Your task to perform on an android device: Go to display settings Image 0: 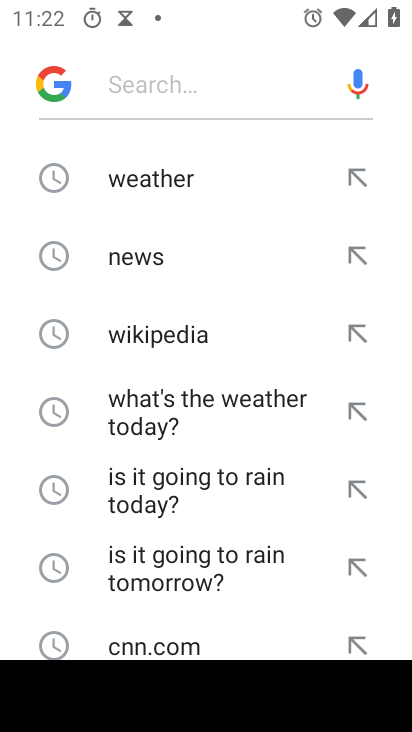
Step 0: press home button
Your task to perform on an android device: Go to display settings Image 1: 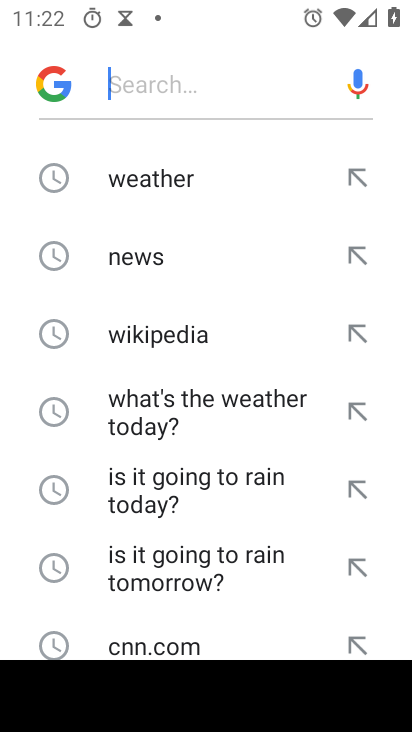
Step 1: press home button
Your task to perform on an android device: Go to display settings Image 2: 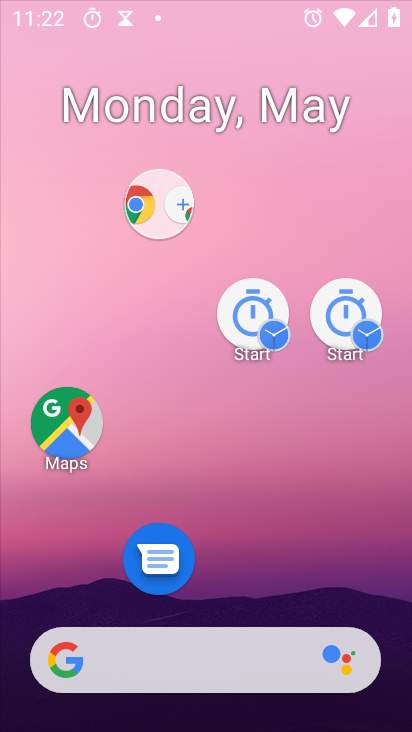
Step 2: press home button
Your task to perform on an android device: Go to display settings Image 3: 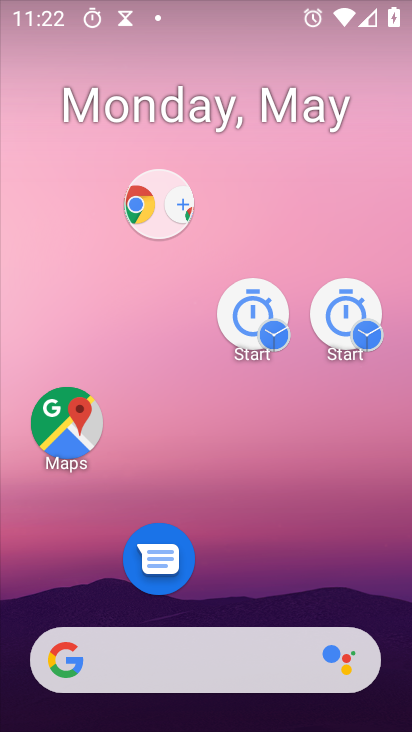
Step 3: press home button
Your task to perform on an android device: Go to display settings Image 4: 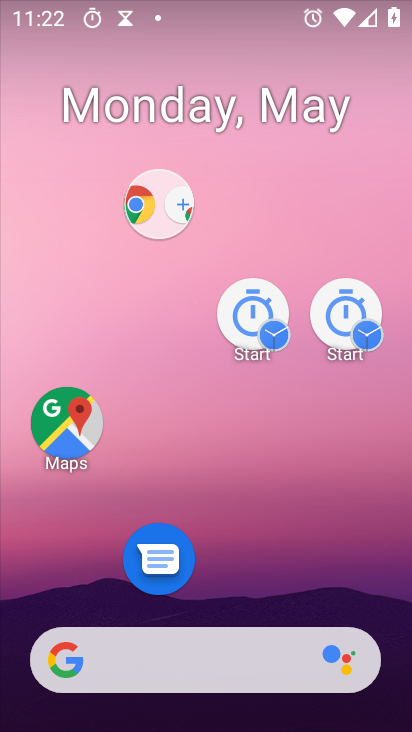
Step 4: drag from (261, 705) to (175, 23)
Your task to perform on an android device: Go to display settings Image 5: 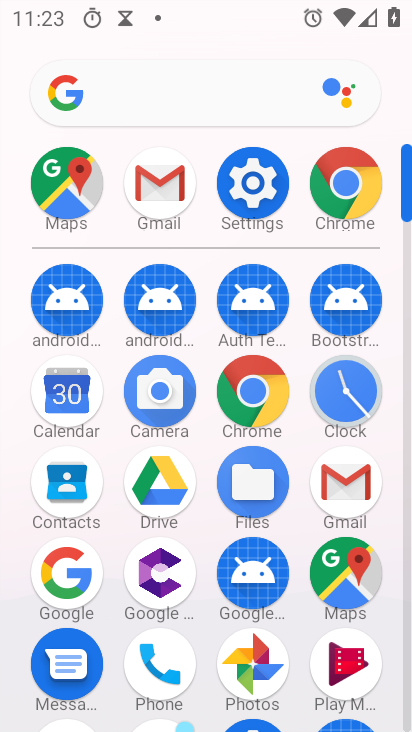
Step 5: click (252, 188)
Your task to perform on an android device: Go to display settings Image 6: 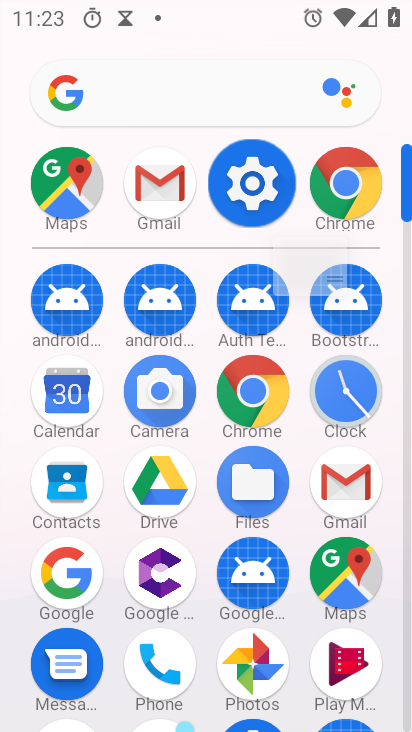
Step 6: click (252, 187)
Your task to perform on an android device: Go to display settings Image 7: 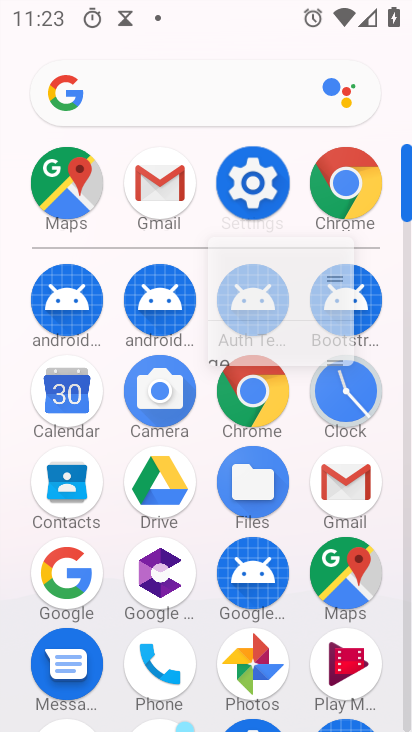
Step 7: click (253, 186)
Your task to perform on an android device: Go to display settings Image 8: 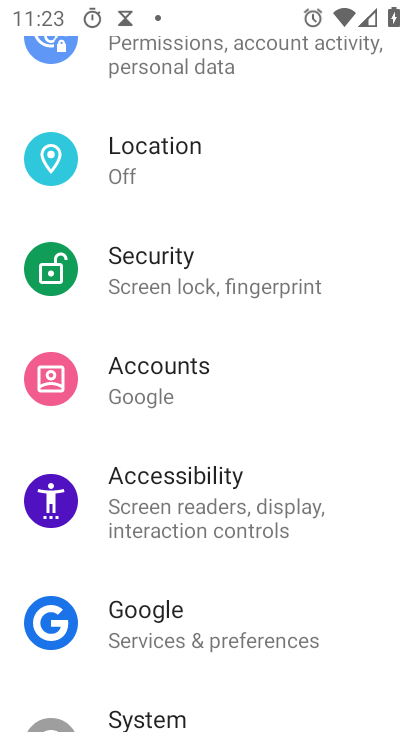
Step 8: drag from (206, 602) to (179, 307)
Your task to perform on an android device: Go to display settings Image 9: 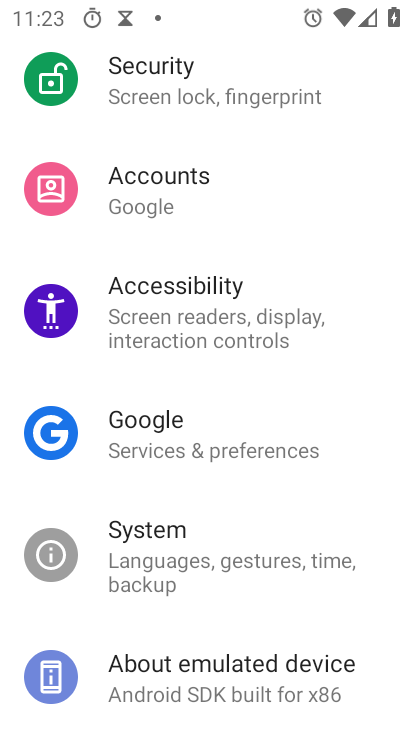
Step 9: drag from (198, 494) to (223, 206)
Your task to perform on an android device: Go to display settings Image 10: 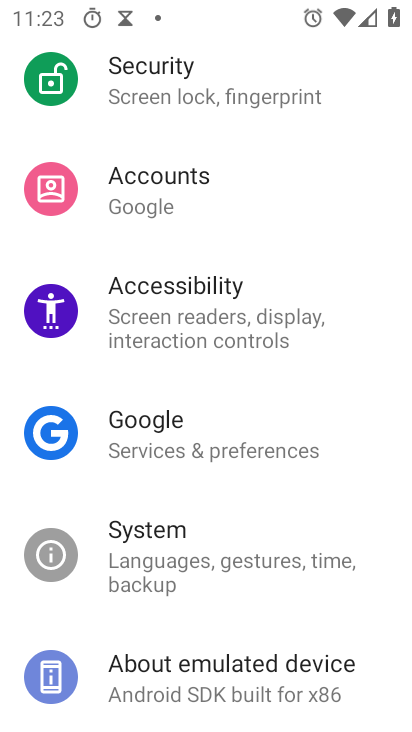
Step 10: click (155, 536)
Your task to perform on an android device: Go to display settings Image 11: 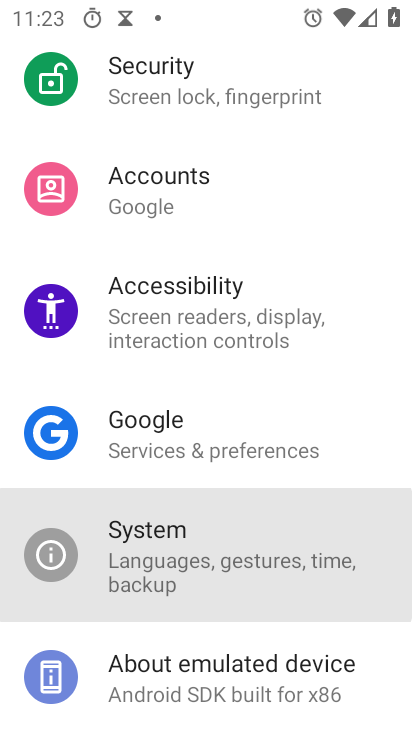
Step 11: click (142, 563)
Your task to perform on an android device: Go to display settings Image 12: 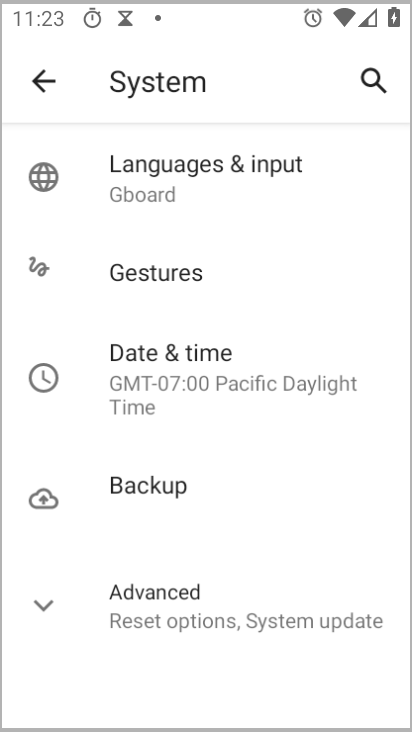
Step 12: click (170, 575)
Your task to perform on an android device: Go to display settings Image 13: 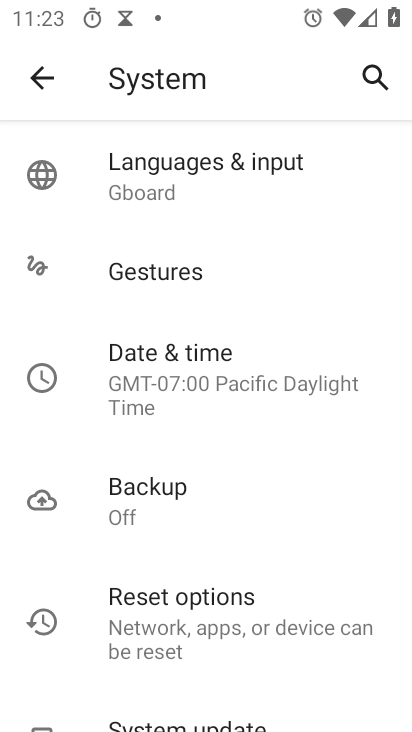
Step 13: drag from (151, 129) to (175, 380)
Your task to perform on an android device: Go to display settings Image 14: 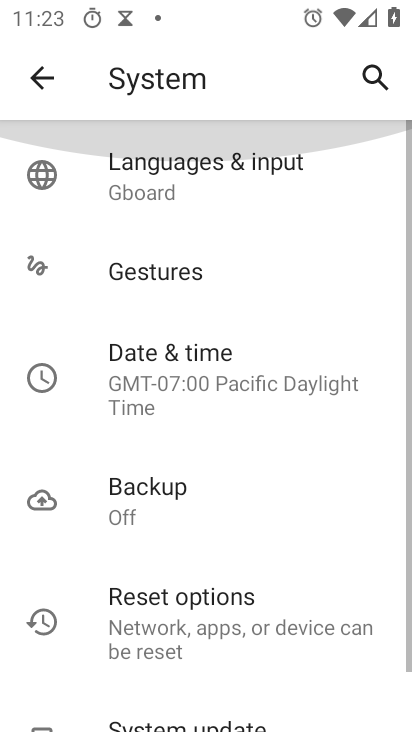
Step 14: drag from (175, 212) to (192, 475)
Your task to perform on an android device: Go to display settings Image 15: 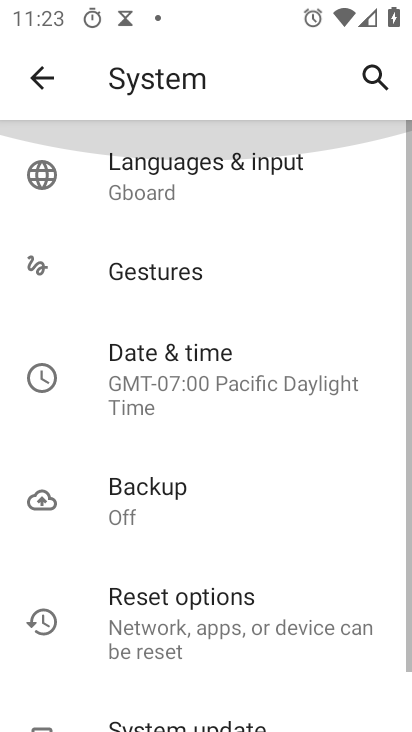
Step 15: drag from (173, 266) to (192, 559)
Your task to perform on an android device: Go to display settings Image 16: 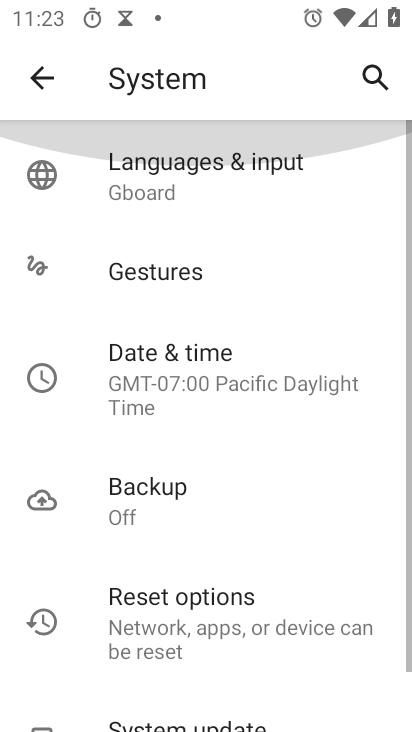
Step 16: drag from (192, 331) to (147, 170)
Your task to perform on an android device: Go to display settings Image 17: 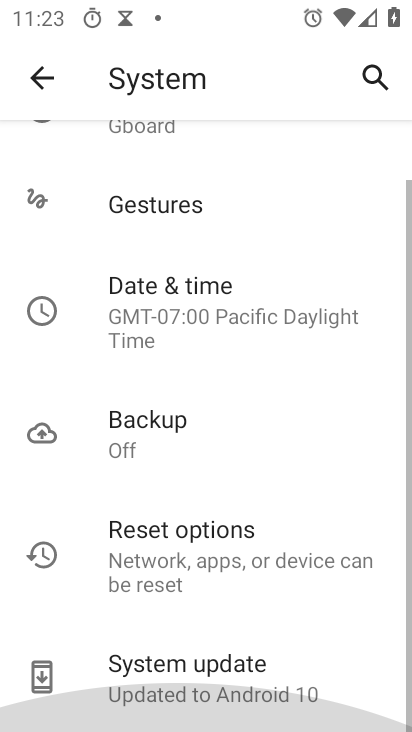
Step 17: drag from (192, 473) to (183, 121)
Your task to perform on an android device: Go to display settings Image 18: 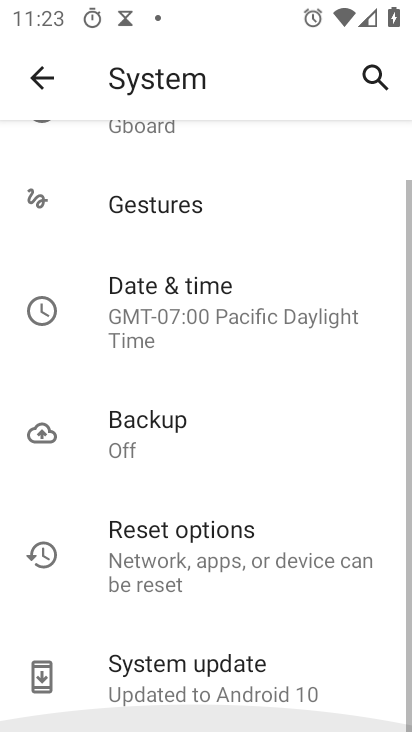
Step 18: drag from (181, 308) to (189, 52)
Your task to perform on an android device: Go to display settings Image 19: 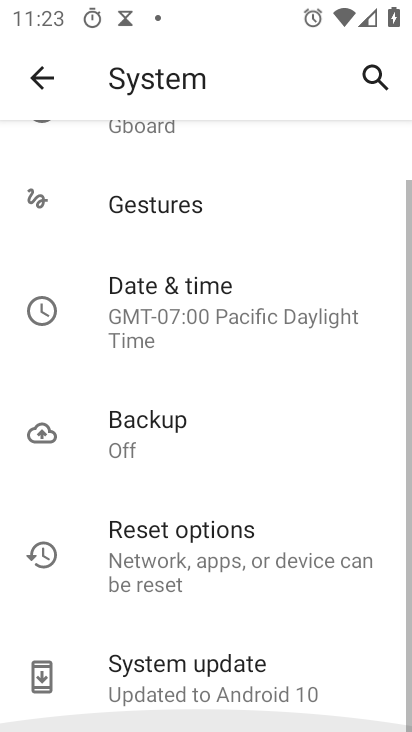
Step 19: drag from (194, 319) to (230, 51)
Your task to perform on an android device: Go to display settings Image 20: 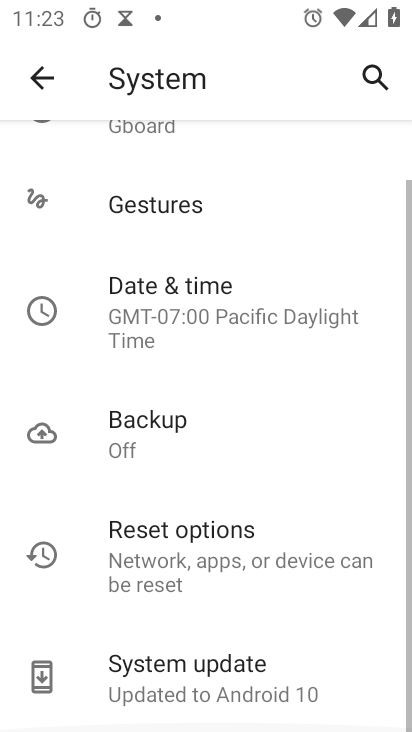
Step 20: drag from (197, 406) to (209, 57)
Your task to perform on an android device: Go to display settings Image 21: 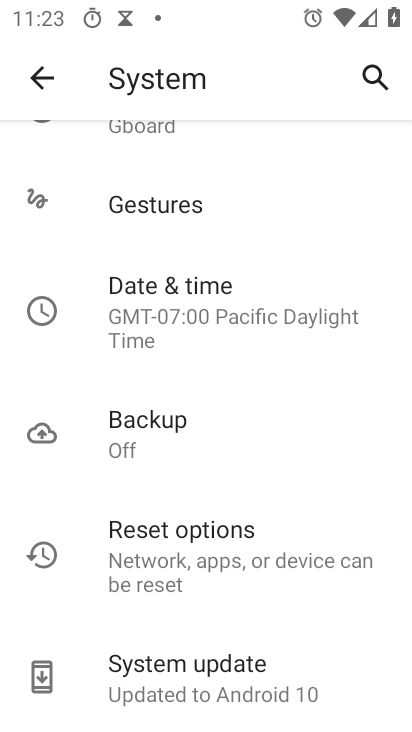
Step 21: drag from (161, 399) to (135, 179)
Your task to perform on an android device: Go to display settings Image 22: 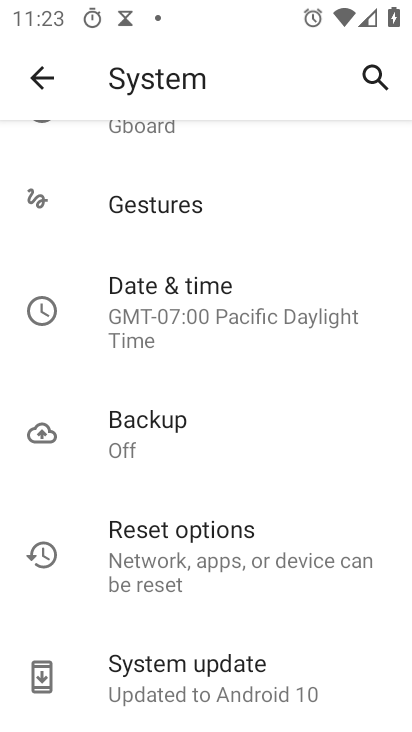
Step 22: drag from (231, 430) to (171, 167)
Your task to perform on an android device: Go to display settings Image 23: 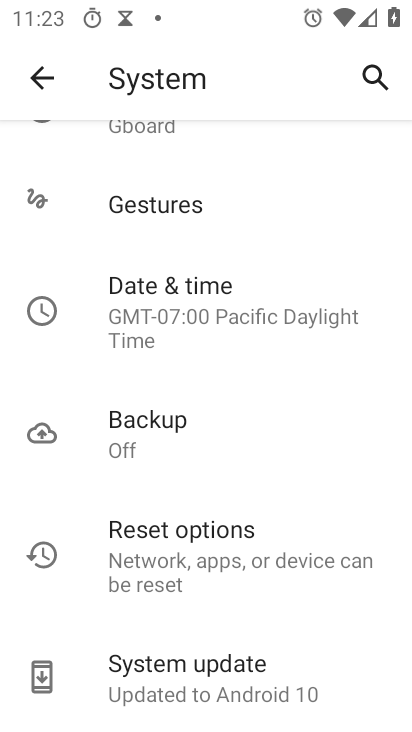
Step 23: drag from (171, 214) to (167, 569)
Your task to perform on an android device: Go to display settings Image 24: 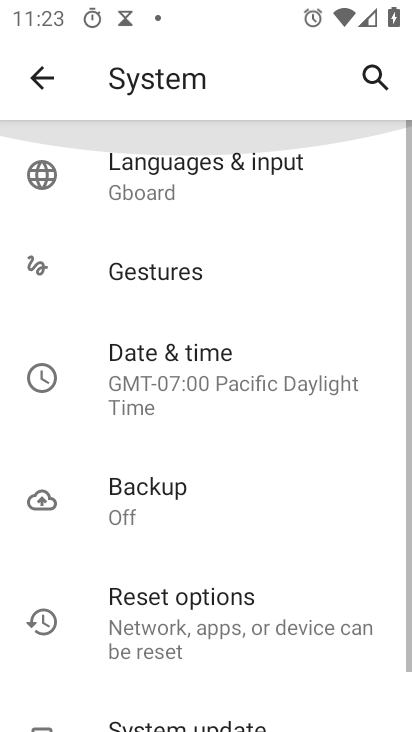
Step 24: drag from (205, 259) to (161, 430)
Your task to perform on an android device: Go to display settings Image 25: 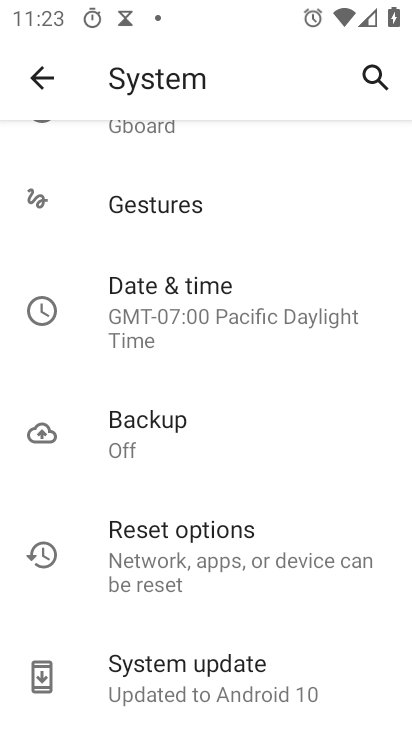
Step 25: click (28, 77)
Your task to perform on an android device: Go to display settings Image 26: 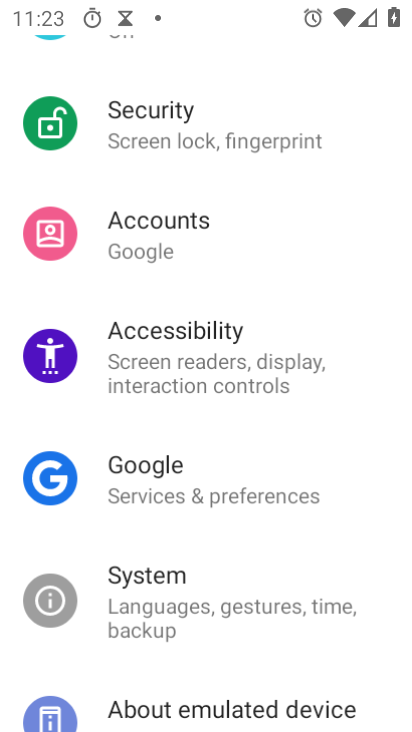
Step 26: click (32, 79)
Your task to perform on an android device: Go to display settings Image 27: 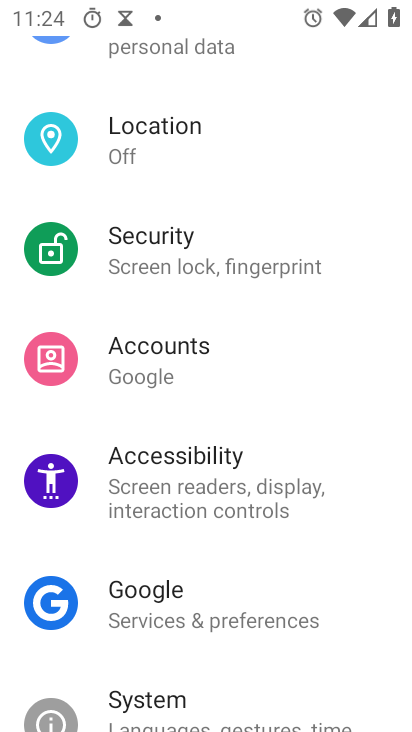
Step 27: drag from (169, 174) to (207, 476)
Your task to perform on an android device: Go to display settings Image 28: 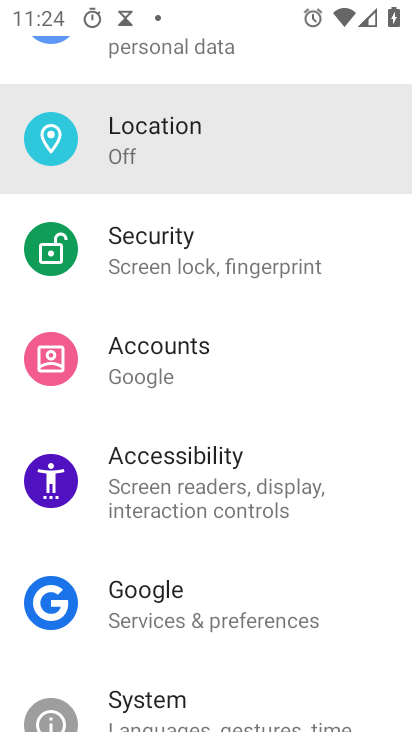
Step 28: drag from (183, 263) to (182, 515)
Your task to perform on an android device: Go to display settings Image 29: 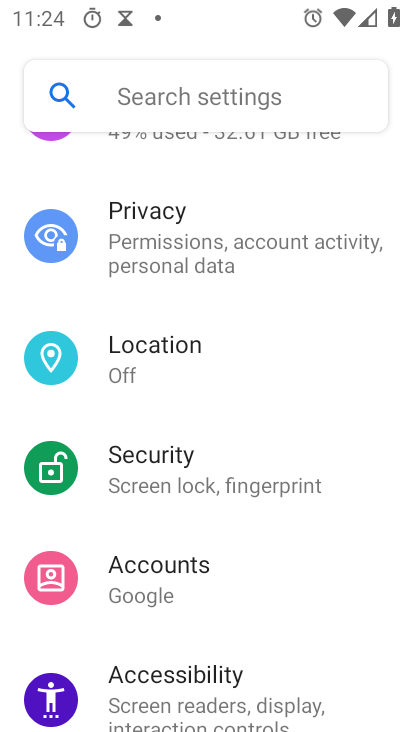
Step 29: drag from (166, 244) to (203, 545)
Your task to perform on an android device: Go to display settings Image 30: 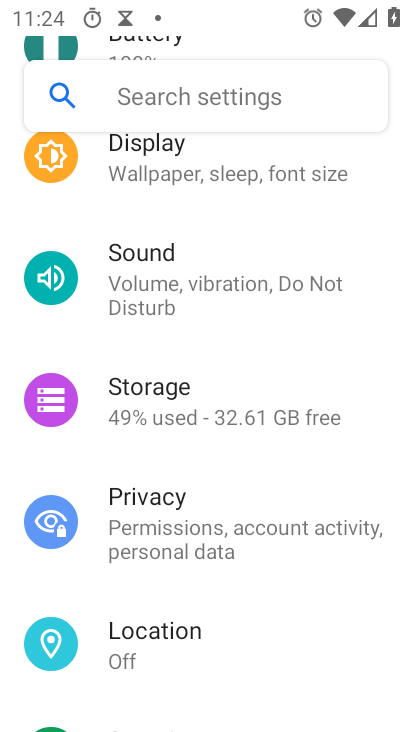
Step 30: drag from (164, 288) to (181, 475)
Your task to perform on an android device: Go to display settings Image 31: 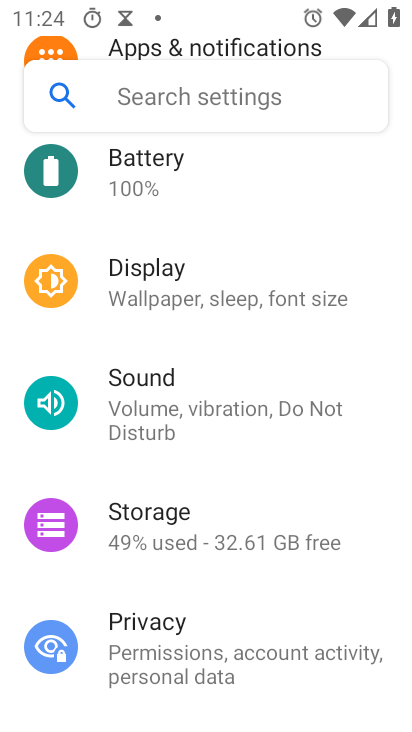
Step 31: drag from (181, 214) to (208, 537)
Your task to perform on an android device: Go to display settings Image 32: 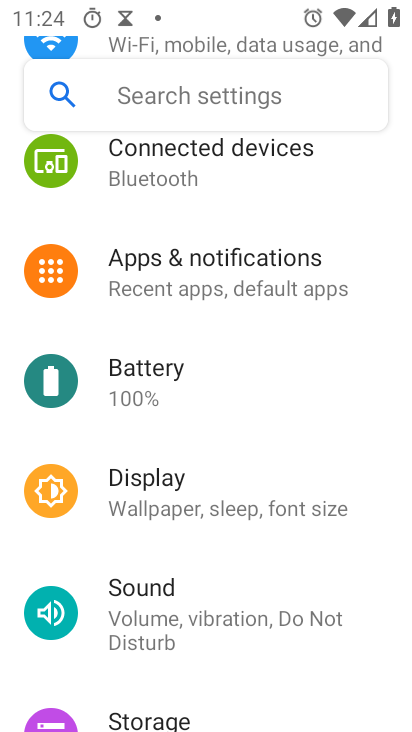
Step 32: drag from (173, 275) to (198, 429)
Your task to perform on an android device: Go to display settings Image 33: 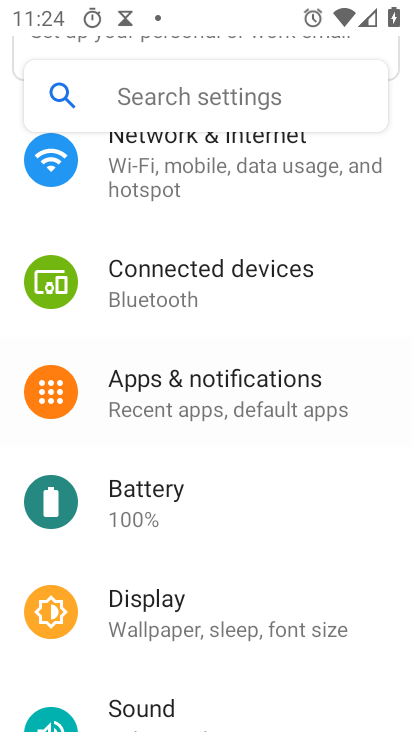
Step 33: drag from (180, 196) to (166, 373)
Your task to perform on an android device: Go to display settings Image 34: 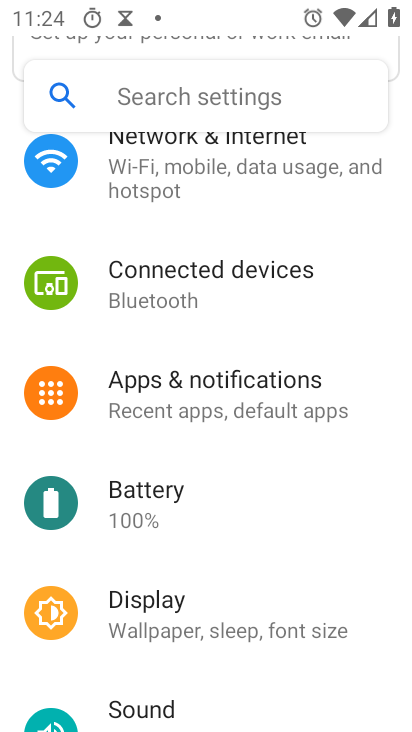
Step 34: click (154, 168)
Your task to perform on an android device: Go to display settings Image 35: 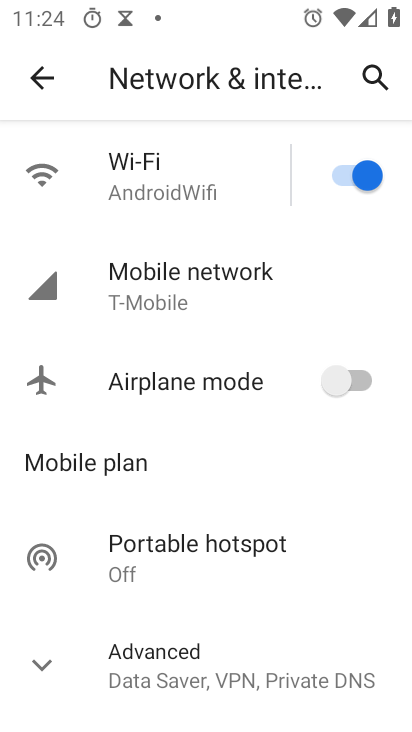
Step 35: click (33, 72)
Your task to perform on an android device: Go to display settings Image 36: 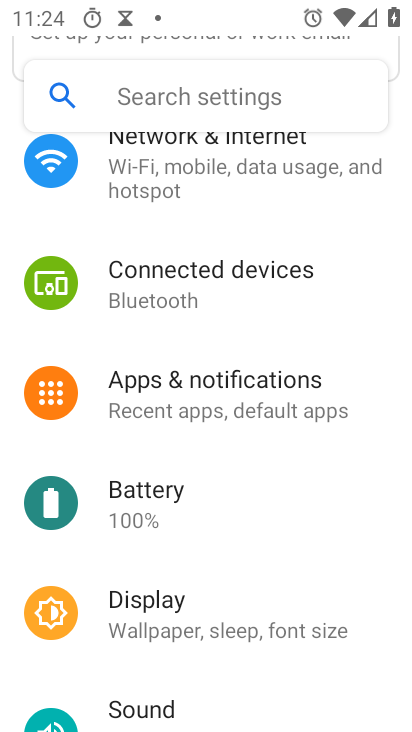
Step 36: click (152, 620)
Your task to perform on an android device: Go to display settings Image 37: 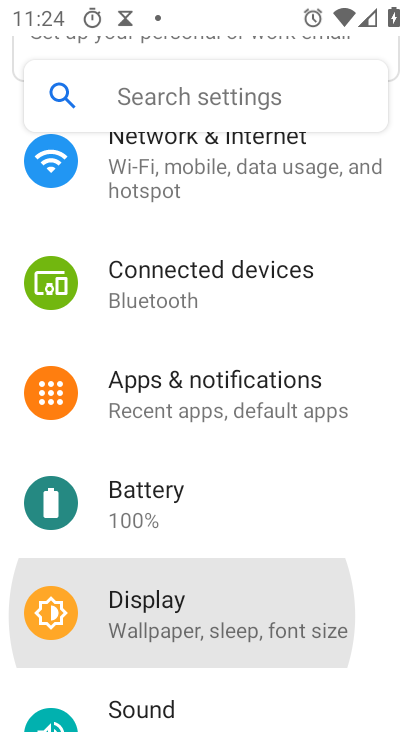
Step 37: click (147, 608)
Your task to perform on an android device: Go to display settings Image 38: 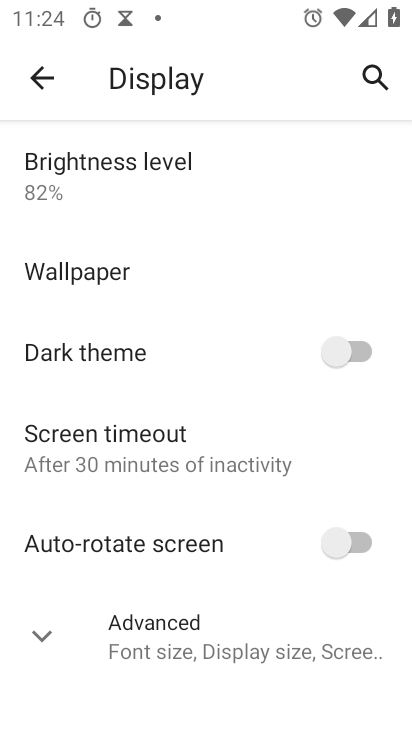
Step 38: click (149, 620)
Your task to perform on an android device: Go to display settings Image 39: 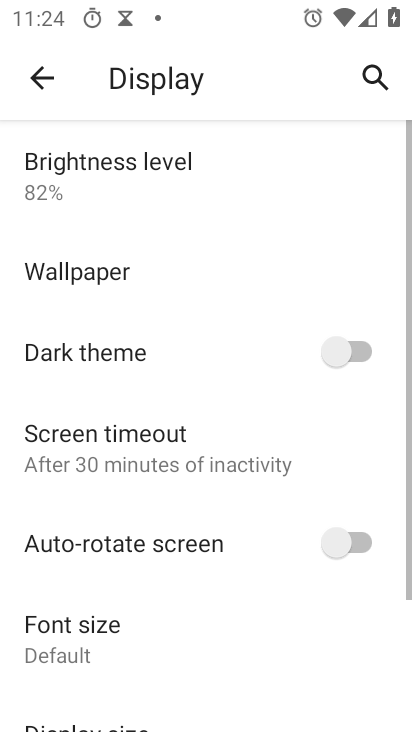
Step 39: task complete